Your task to perform on an android device: Set the phone to "Do not disturb". Image 0: 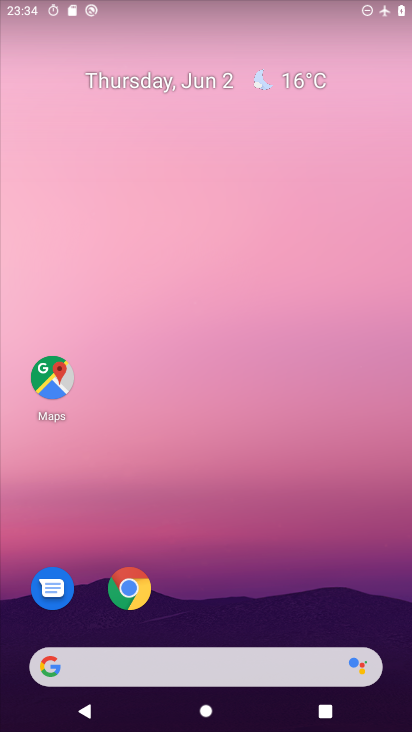
Step 0: drag from (140, 10) to (208, 556)
Your task to perform on an android device: Set the phone to "Do not disturb". Image 1: 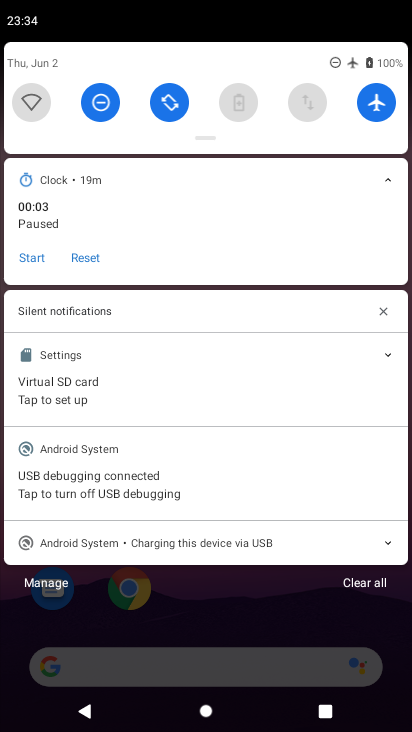
Step 1: task complete